Your task to perform on an android device: Search for Mexican restaurants on Maps Image 0: 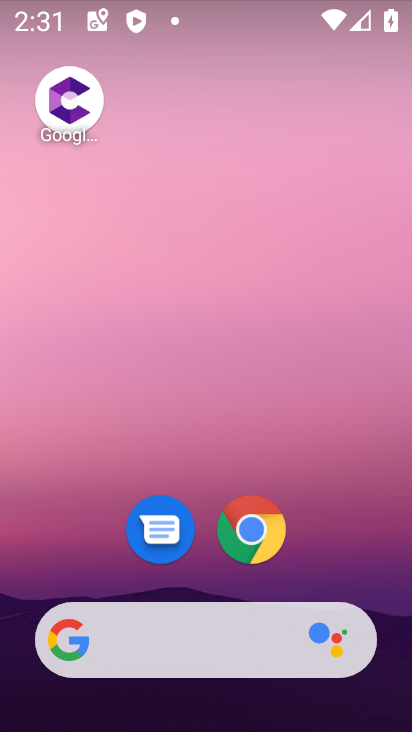
Step 0: drag from (160, 586) to (235, 157)
Your task to perform on an android device: Search for Mexican restaurants on Maps Image 1: 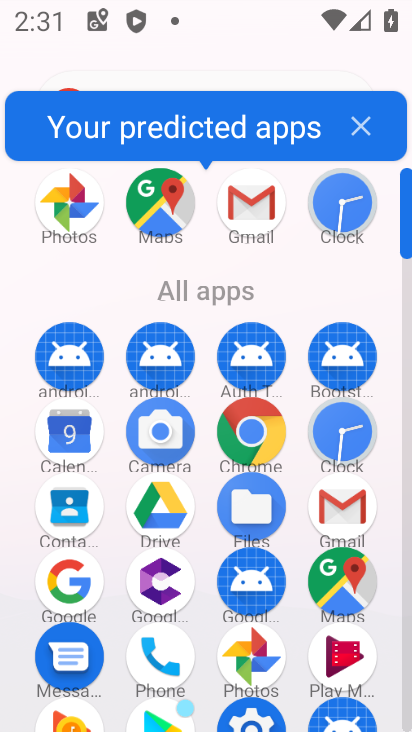
Step 1: click (148, 206)
Your task to perform on an android device: Search for Mexican restaurants on Maps Image 2: 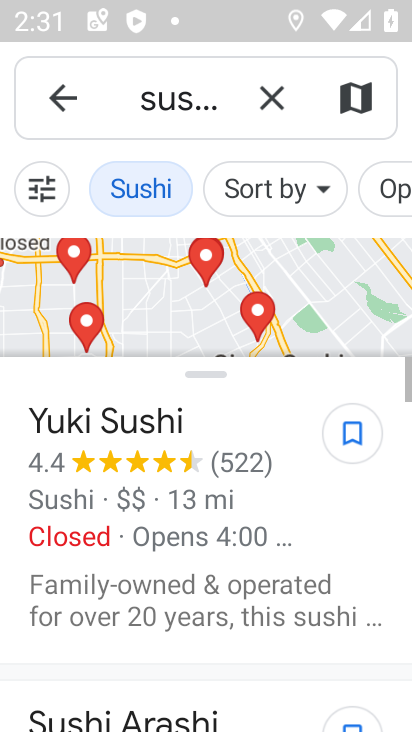
Step 2: click (291, 100)
Your task to perform on an android device: Search for Mexican restaurants on Maps Image 3: 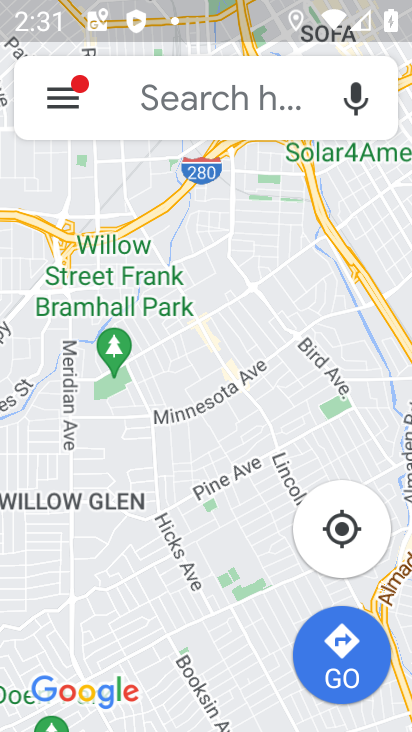
Step 3: click (291, 100)
Your task to perform on an android device: Search for Mexican restaurants on Maps Image 4: 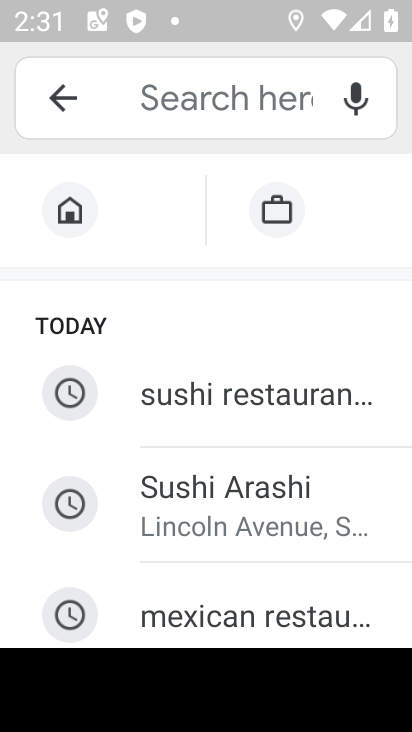
Step 4: type "Mexican restaurants"
Your task to perform on an android device: Search for Mexican restaurants on Maps Image 5: 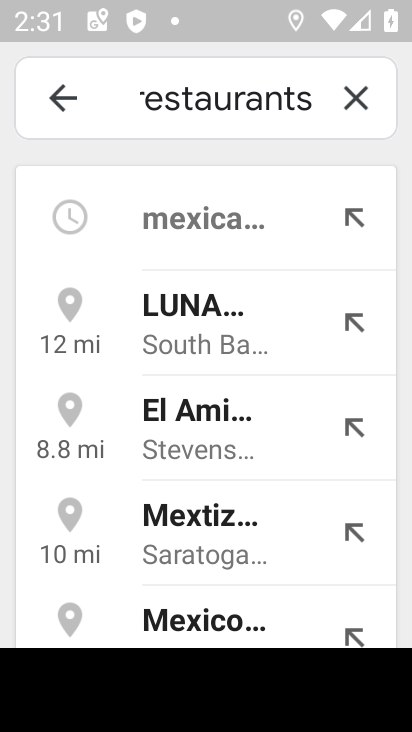
Step 5: click (276, 253)
Your task to perform on an android device: Search for Mexican restaurants on Maps Image 6: 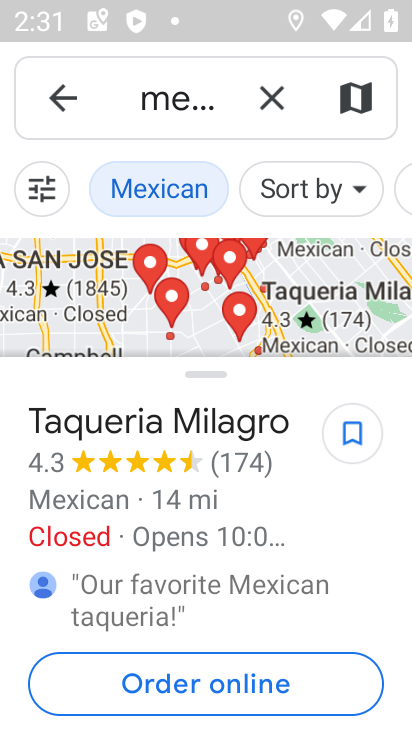
Step 6: task complete